Your task to perform on an android device: What is the news today? Image 0: 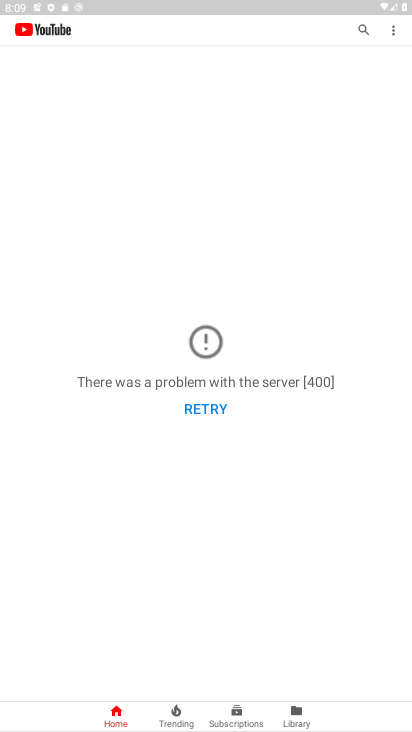
Step 0: press home button
Your task to perform on an android device: What is the news today? Image 1: 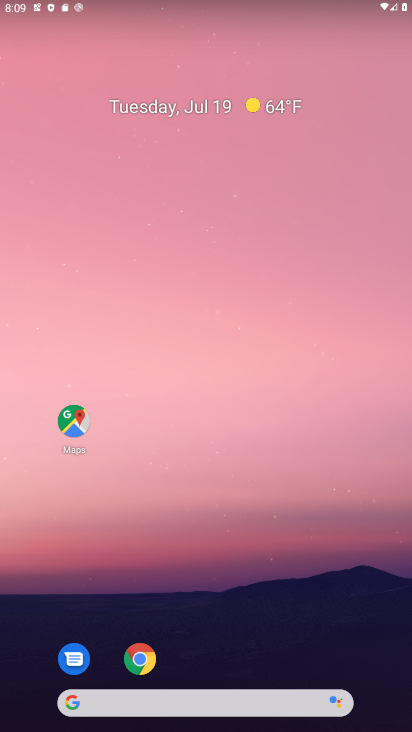
Step 1: click (195, 702)
Your task to perform on an android device: What is the news today? Image 2: 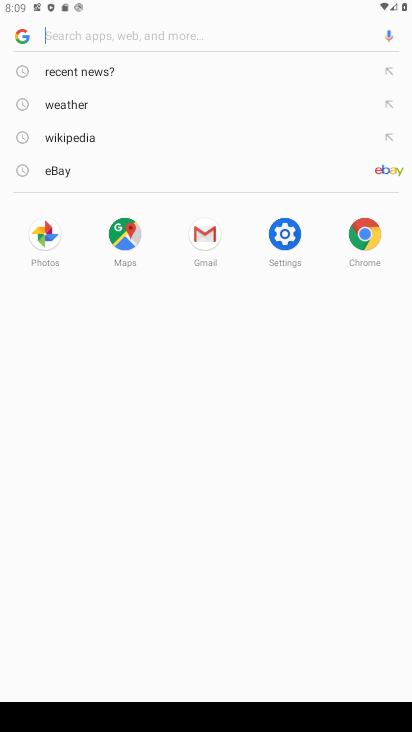
Step 2: click (26, 43)
Your task to perform on an android device: What is the news today? Image 3: 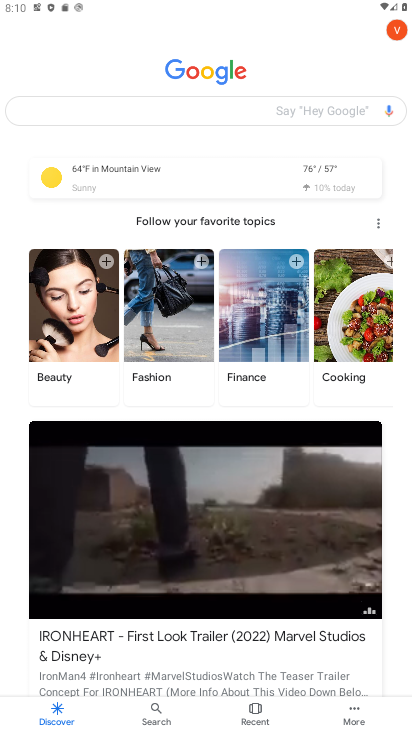
Step 3: task complete